Your task to perform on an android device: Go to accessibility settings Image 0: 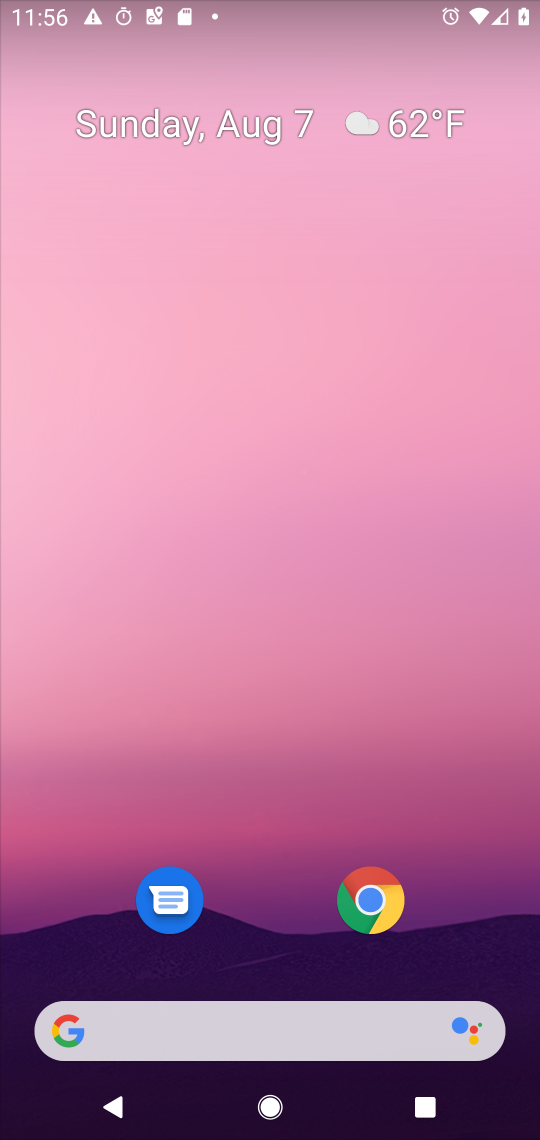
Step 0: press home button
Your task to perform on an android device: Go to accessibility settings Image 1: 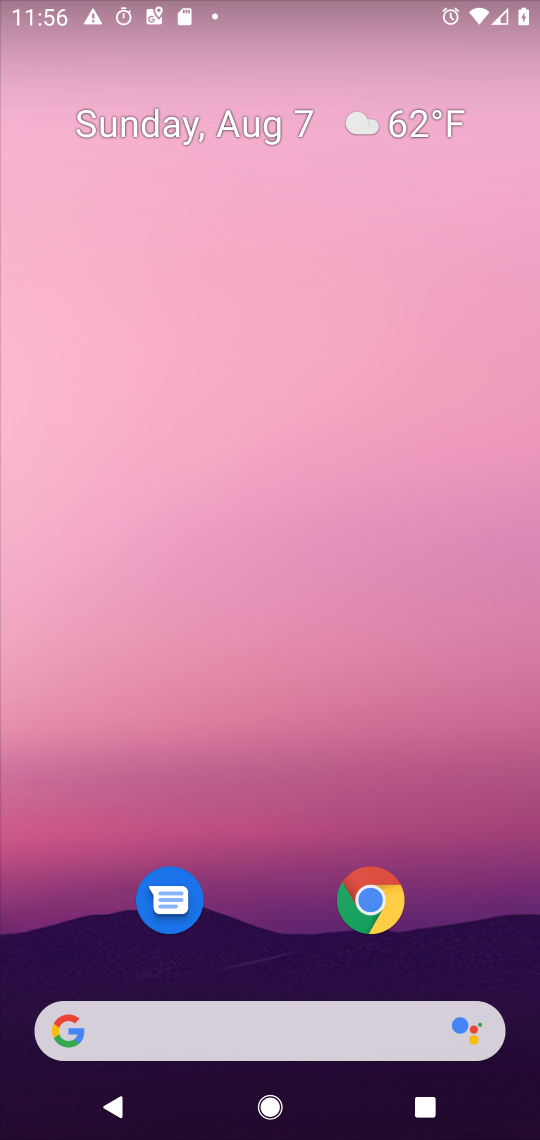
Step 1: drag from (284, 955) to (312, 244)
Your task to perform on an android device: Go to accessibility settings Image 2: 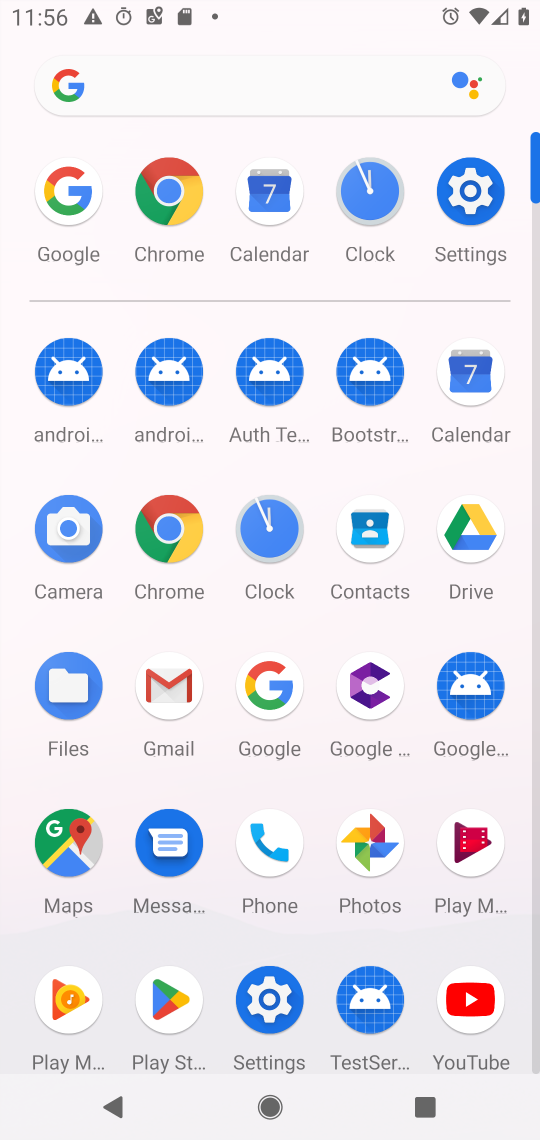
Step 2: click (269, 984)
Your task to perform on an android device: Go to accessibility settings Image 3: 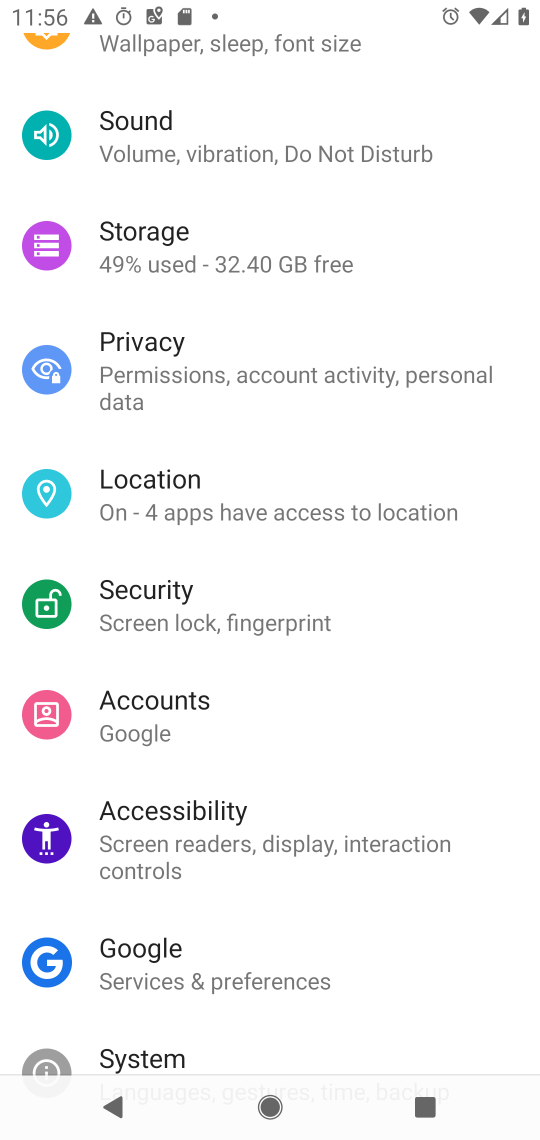
Step 3: click (216, 827)
Your task to perform on an android device: Go to accessibility settings Image 4: 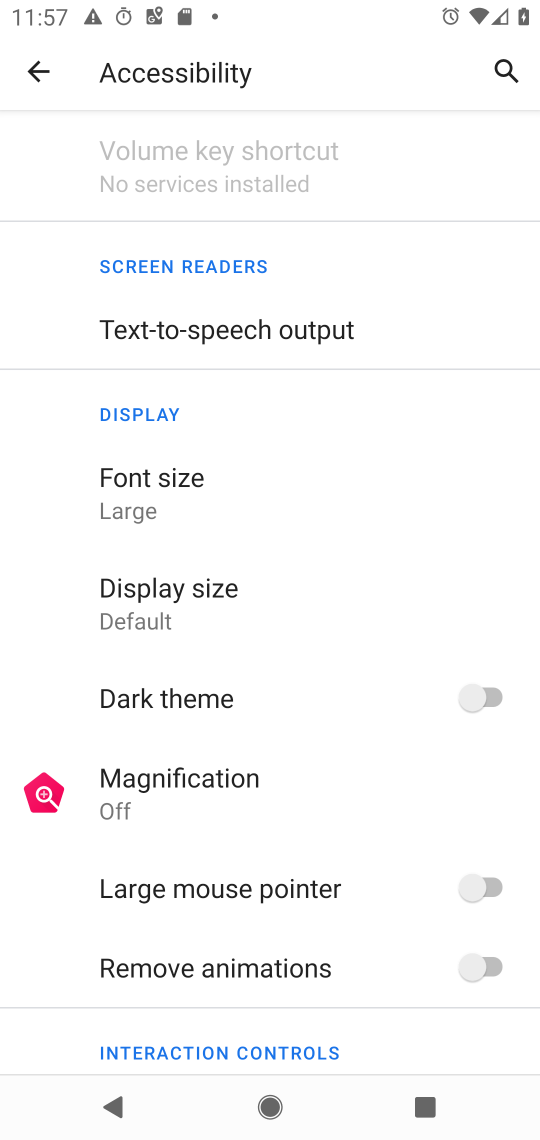
Step 4: task complete